Your task to perform on an android device: What is the capital of Italy? Image 0: 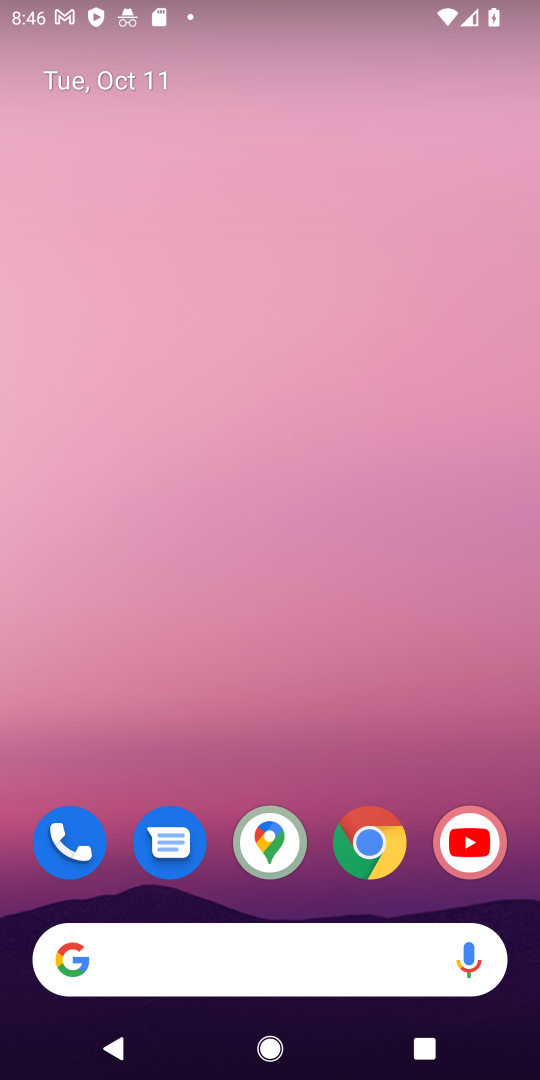
Step 0: click (268, 957)
Your task to perform on an android device: What is the capital of Italy? Image 1: 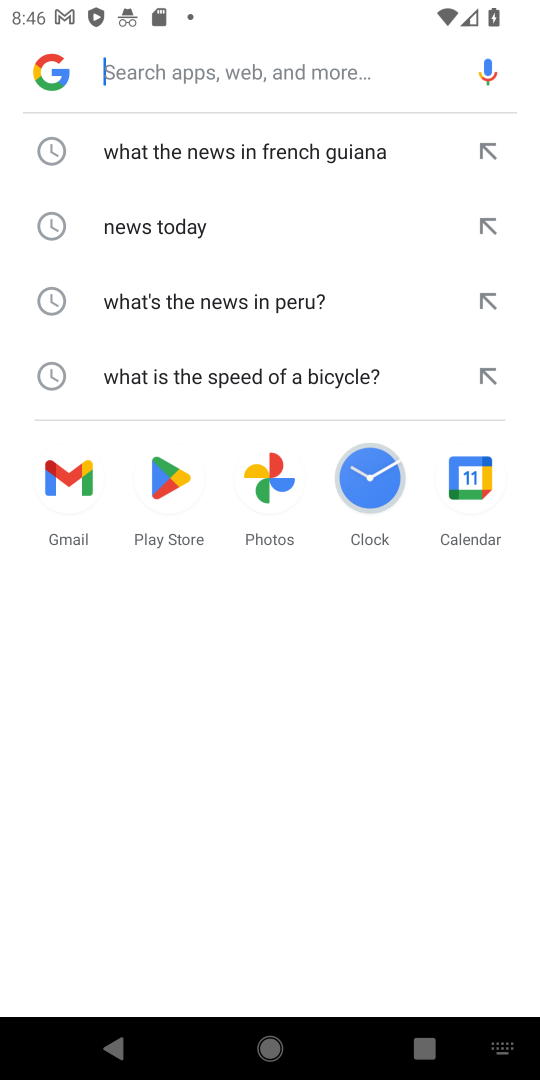
Step 1: type "What is the capital of Italy?"
Your task to perform on an android device: What is the capital of Italy? Image 2: 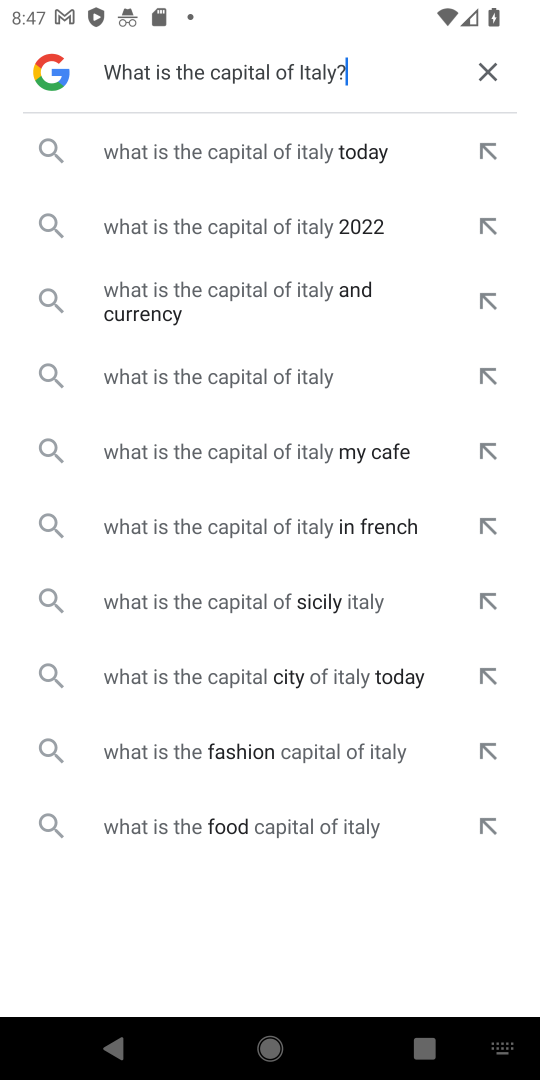
Step 2: click (339, 154)
Your task to perform on an android device: What is the capital of Italy? Image 3: 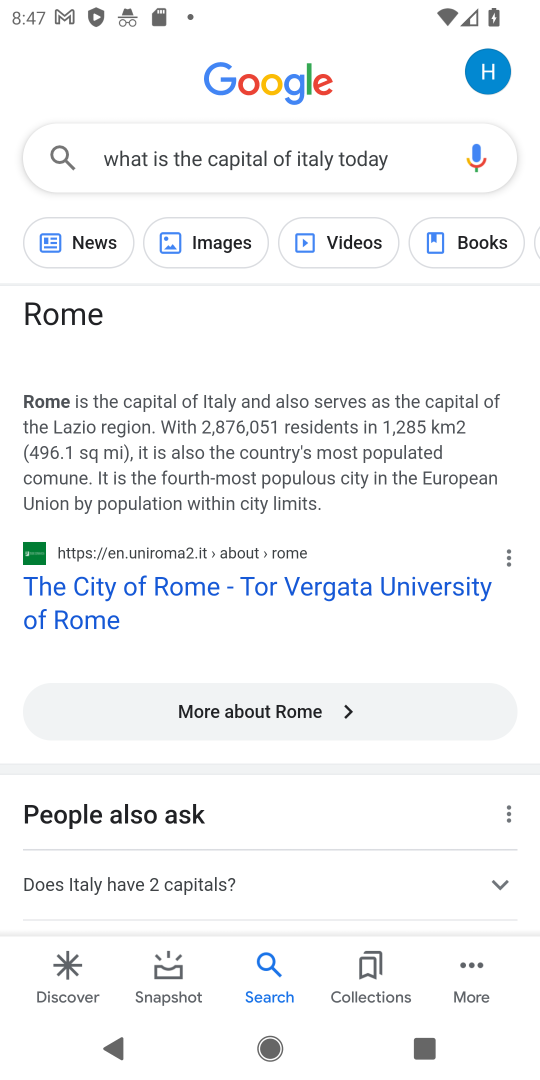
Step 3: task complete